Your task to perform on an android device: Do I have any events this weekend? Image 0: 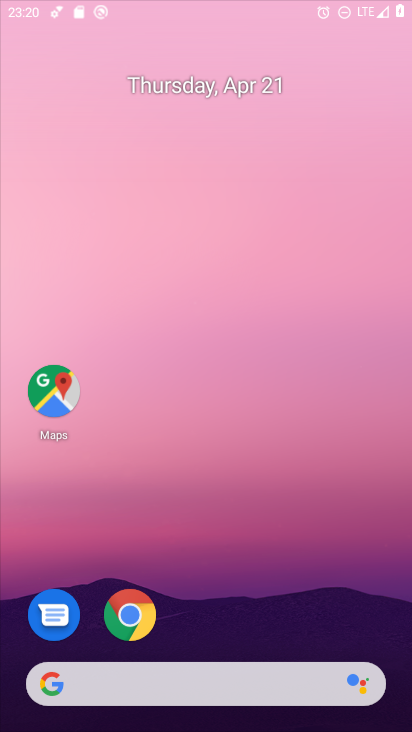
Step 0: click (219, 66)
Your task to perform on an android device: Do I have any events this weekend? Image 1: 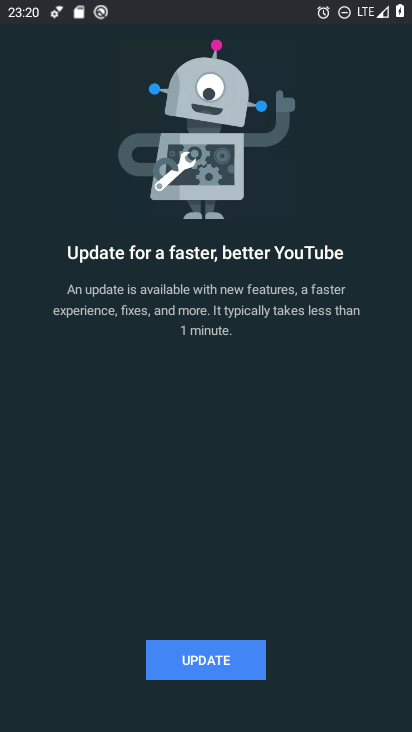
Step 1: press home button
Your task to perform on an android device: Do I have any events this weekend? Image 2: 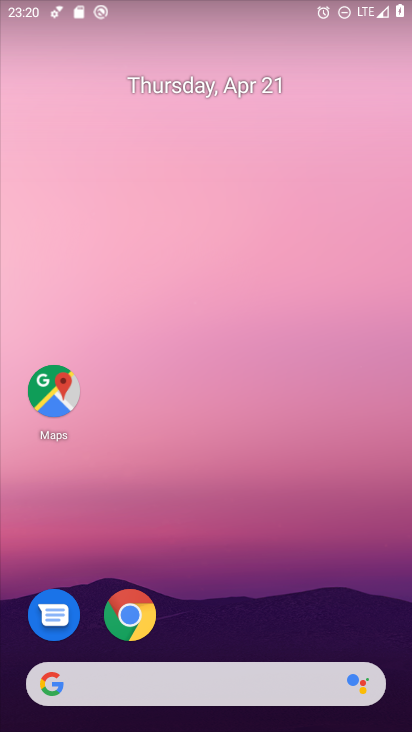
Step 2: drag from (232, 643) to (255, 75)
Your task to perform on an android device: Do I have any events this weekend? Image 3: 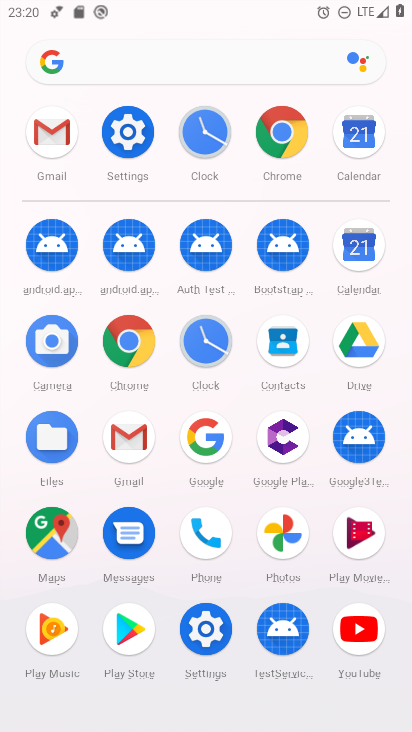
Step 3: click (350, 238)
Your task to perform on an android device: Do I have any events this weekend? Image 4: 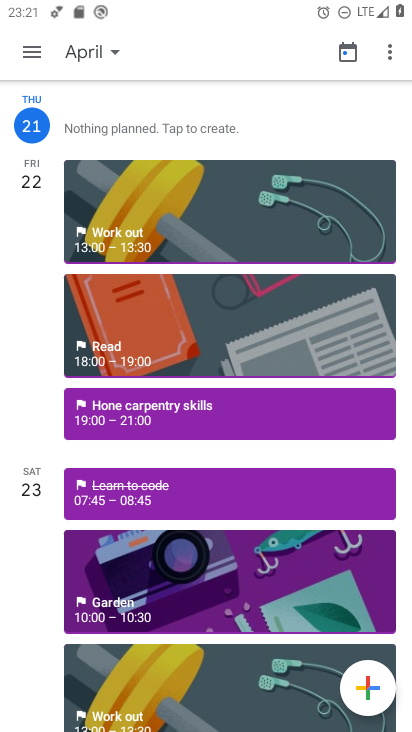
Step 4: task complete